Your task to perform on an android device: Go to notification settings Image 0: 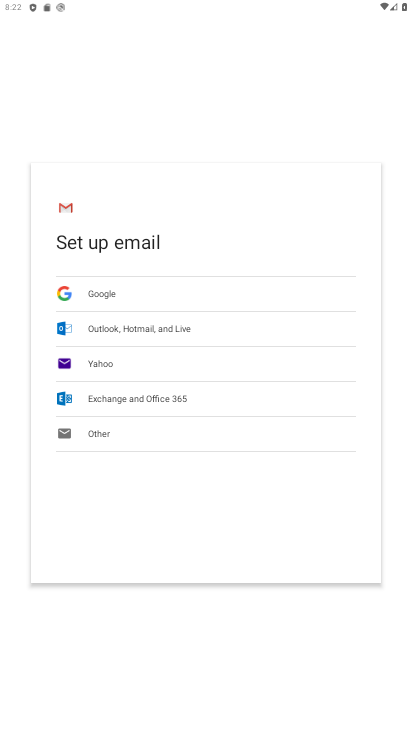
Step 0: press home button
Your task to perform on an android device: Go to notification settings Image 1: 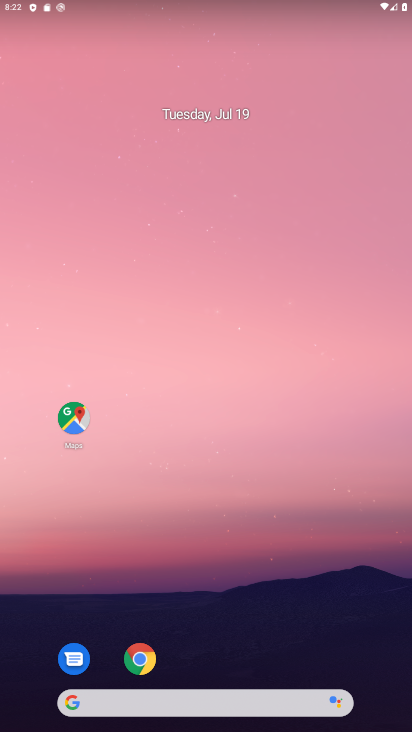
Step 1: drag from (227, 586) to (268, 192)
Your task to perform on an android device: Go to notification settings Image 2: 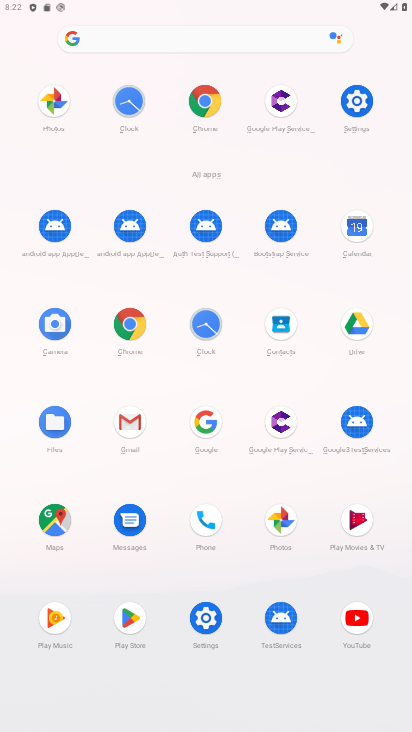
Step 2: click (211, 616)
Your task to perform on an android device: Go to notification settings Image 3: 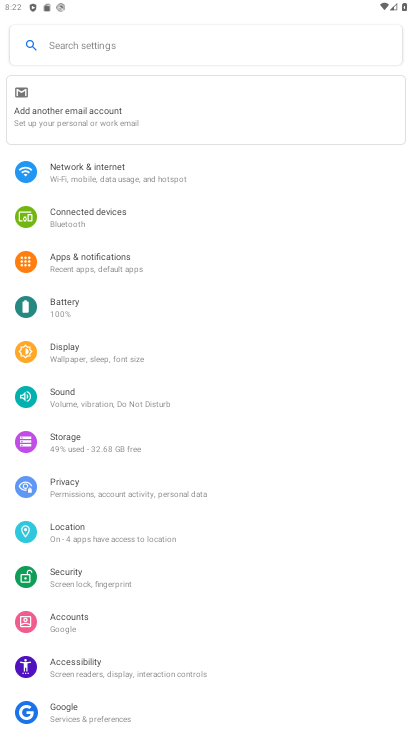
Step 3: click (155, 267)
Your task to perform on an android device: Go to notification settings Image 4: 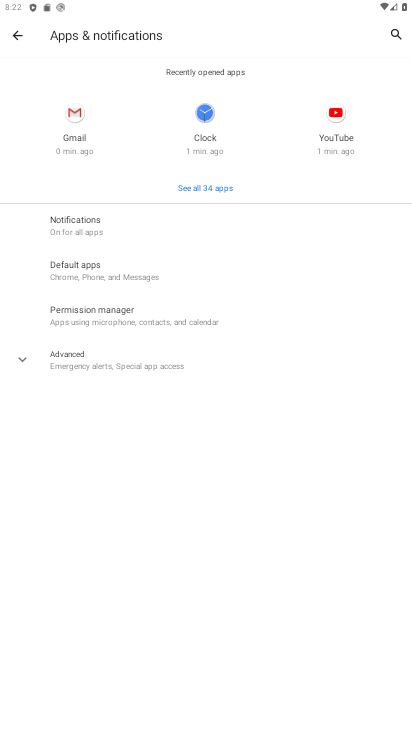
Step 4: click (109, 233)
Your task to perform on an android device: Go to notification settings Image 5: 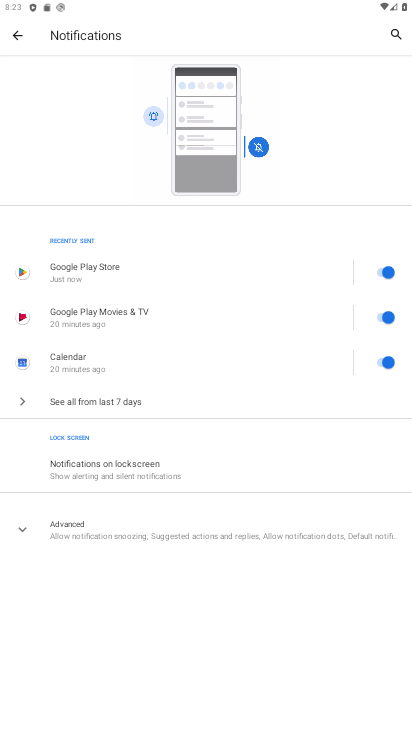
Step 5: task complete